Your task to perform on an android device: Go to location settings Image 0: 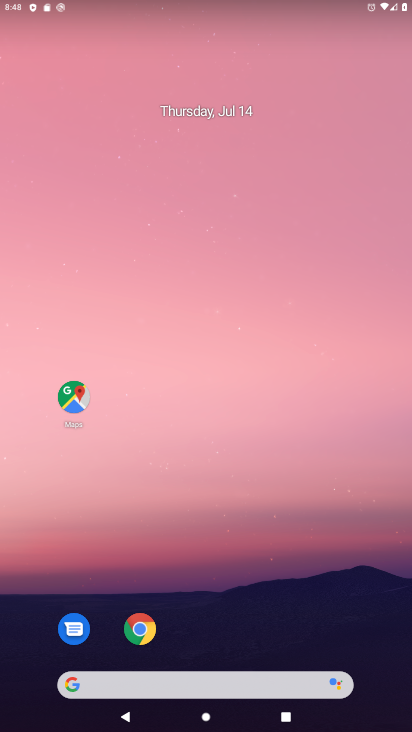
Step 0: drag from (263, 608) to (232, 29)
Your task to perform on an android device: Go to location settings Image 1: 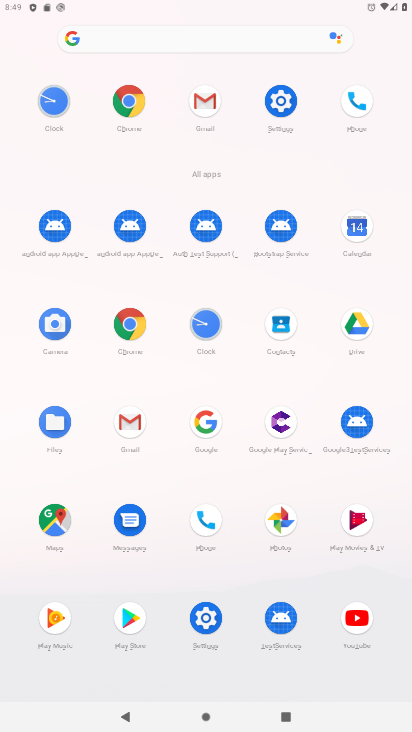
Step 1: click (285, 96)
Your task to perform on an android device: Go to location settings Image 2: 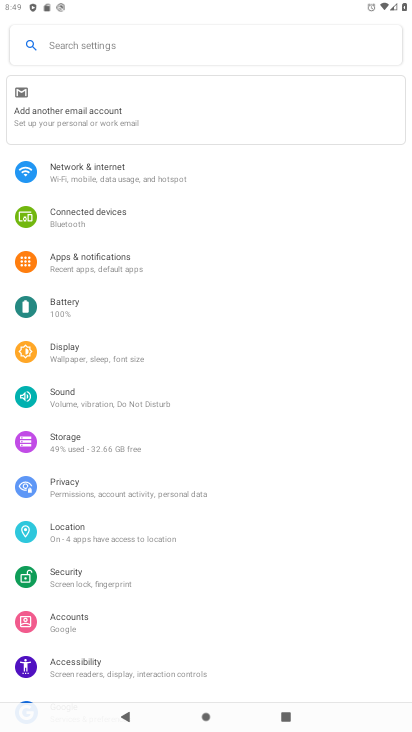
Step 2: click (81, 529)
Your task to perform on an android device: Go to location settings Image 3: 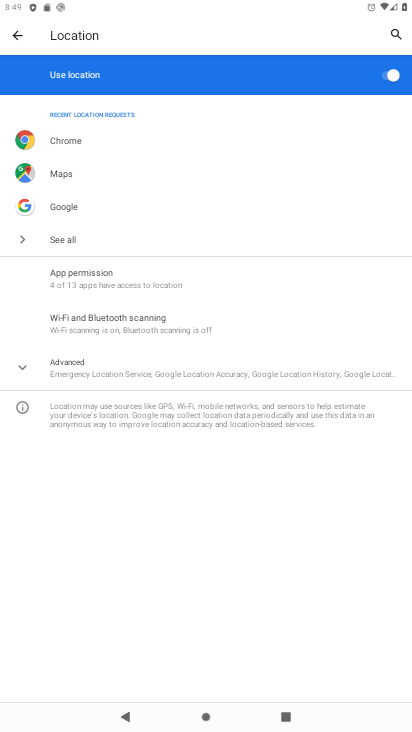
Step 3: task complete